Your task to perform on an android device: set an alarm Image 0: 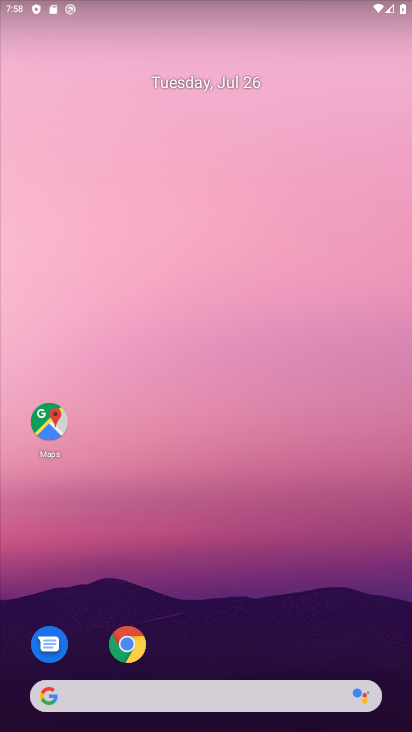
Step 0: drag from (169, 692) to (166, 385)
Your task to perform on an android device: set an alarm Image 1: 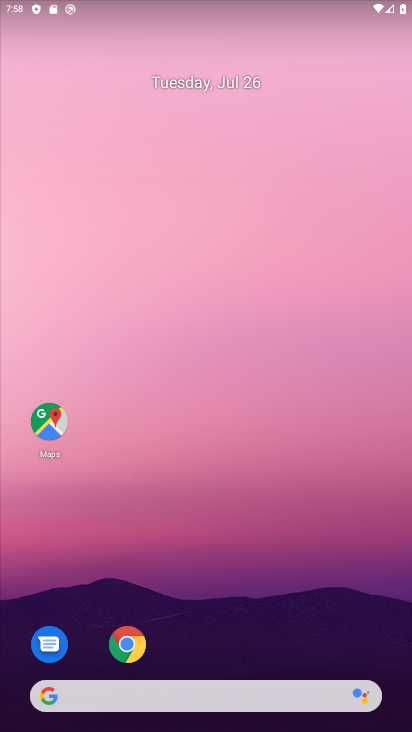
Step 1: drag from (166, 692) to (253, 228)
Your task to perform on an android device: set an alarm Image 2: 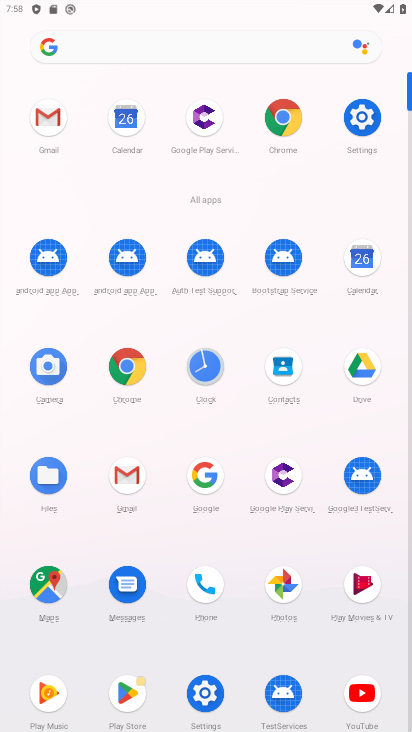
Step 2: click (212, 369)
Your task to perform on an android device: set an alarm Image 3: 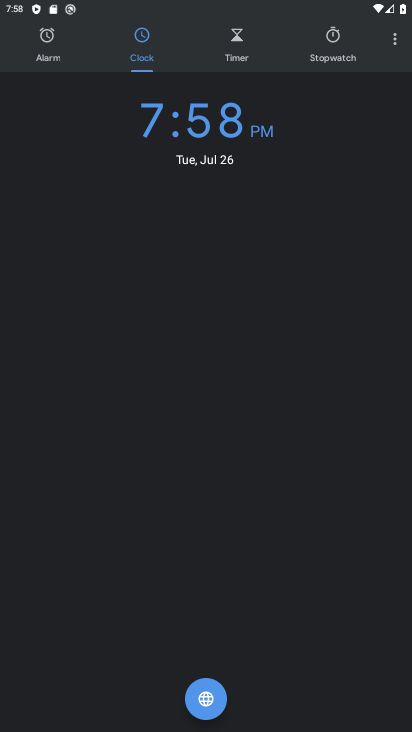
Step 3: click (51, 29)
Your task to perform on an android device: set an alarm Image 4: 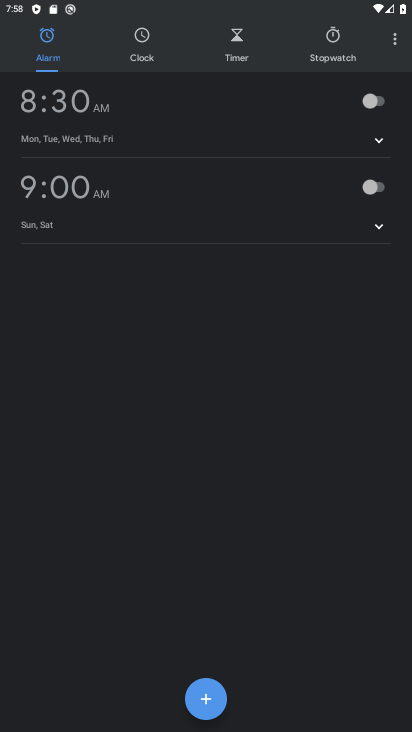
Step 4: click (389, 98)
Your task to perform on an android device: set an alarm Image 5: 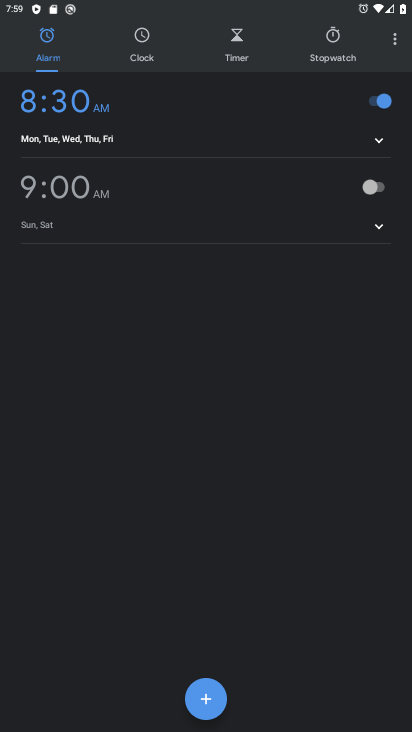
Step 5: task complete